Your task to perform on an android device: toggle airplane mode Image 0: 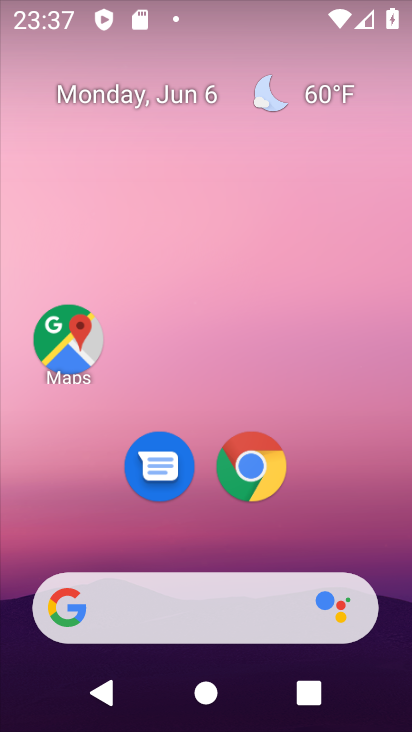
Step 0: drag from (317, 520) to (328, 2)
Your task to perform on an android device: toggle airplane mode Image 1: 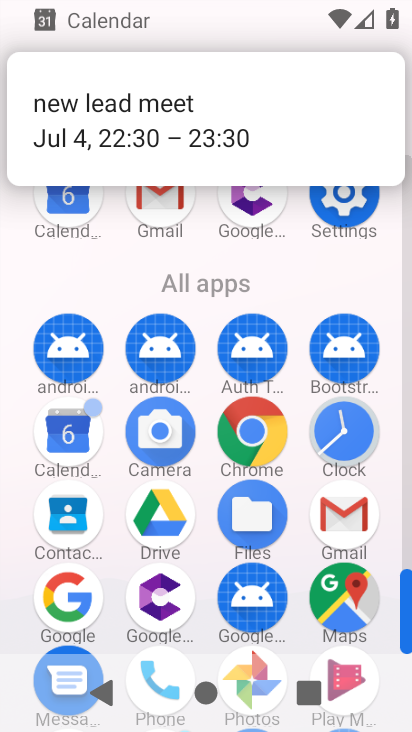
Step 1: click (328, 208)
Your task to perform on an android device: toggle airplane mode Image 2: 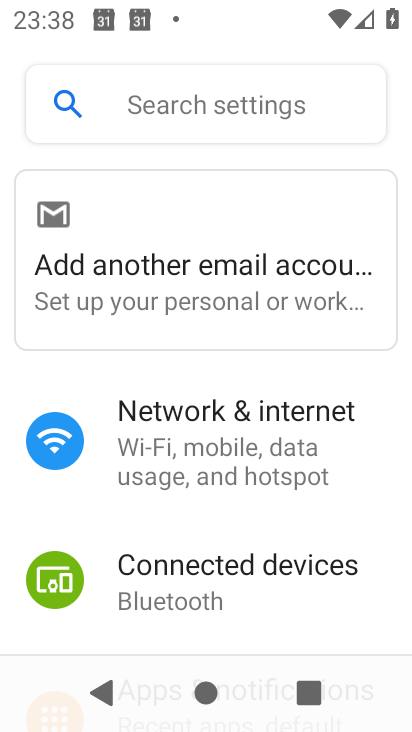
Step 2: click (183, 438)
Your task to perform on an android device: toggle airplane mode Image 3: 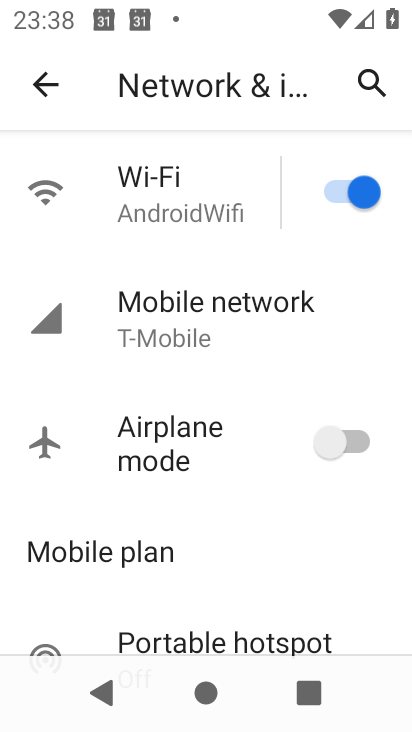
Step 3: click (337, 451)
Your task to perform on an android device: toggle airplane mode Image 4: 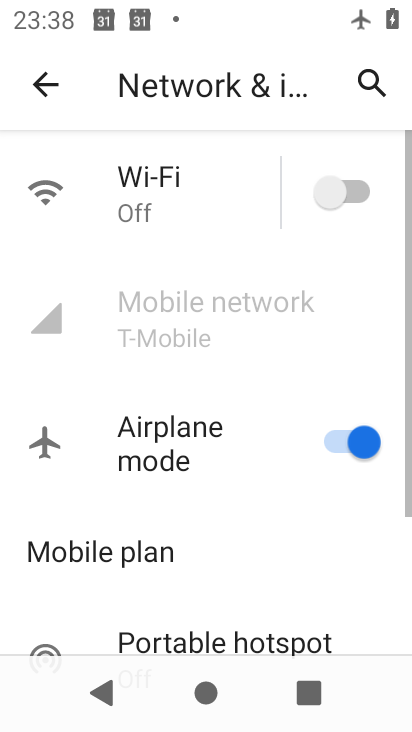
Step 4: task complete